Your task to perform on an android device: Open maps Image 0: 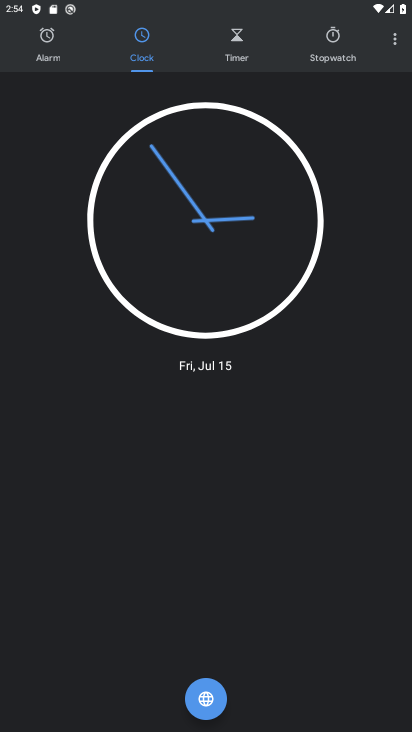
Step 0: press back button
Your task to perform on an android device: Open maps Image 1: 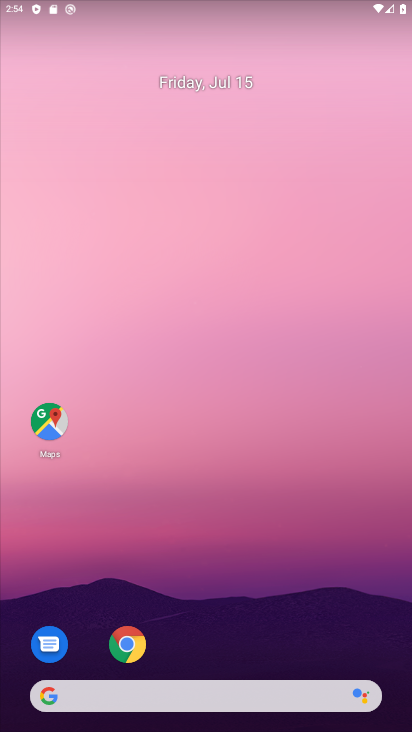
Step 1: click (67, 413)
Your task to perform on an android device: Open maps Image 2: 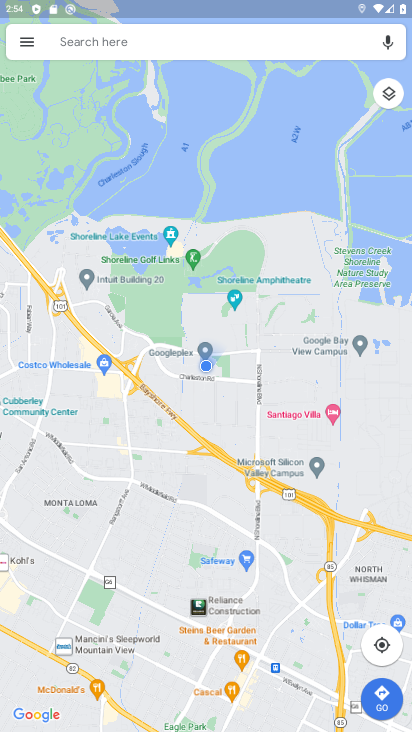
Step 2: task complete